Your task to perform on an android device: open app "Google Pay: Save, Pay, Manage" (install if not already installed) Image 0: 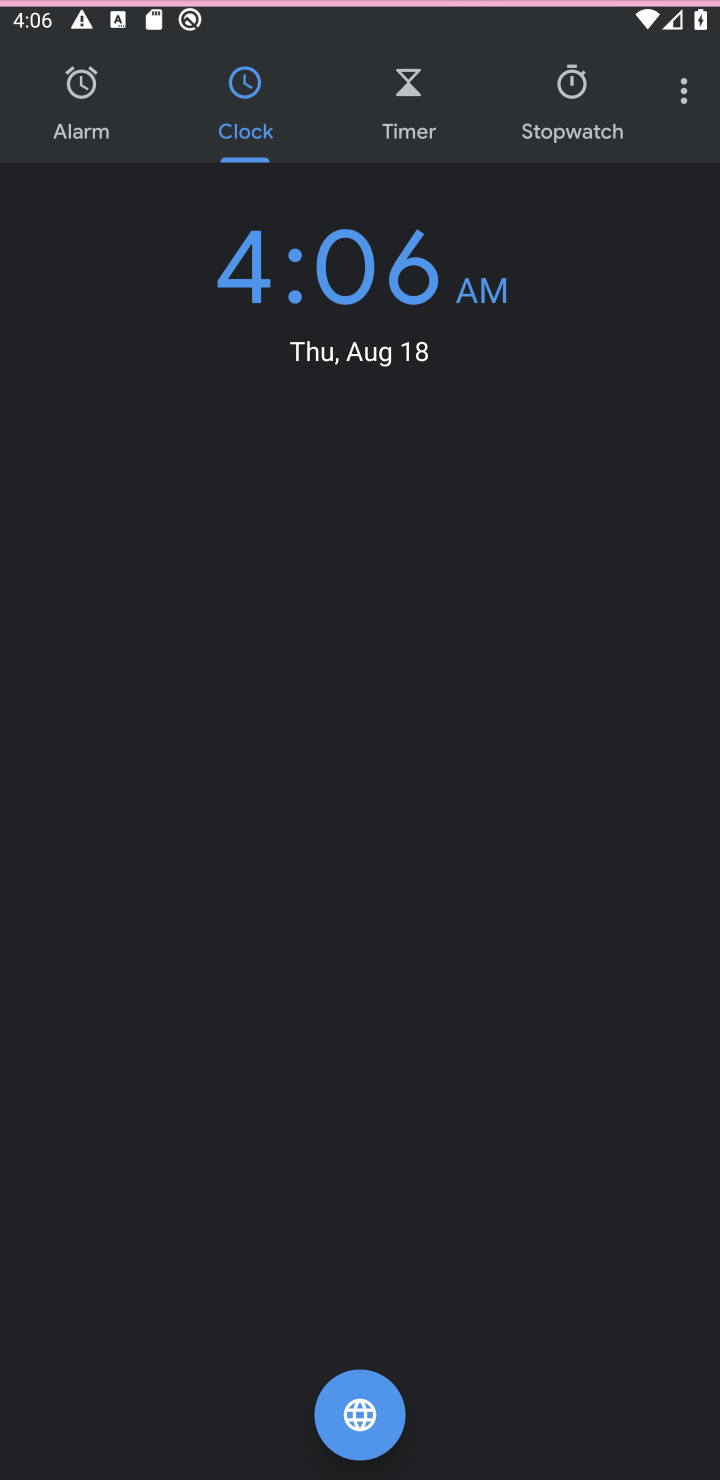
Step 0: press home button
Your task to perform on an android device: open app "Google Pay: Save, Pay, Manage" (install if not already installed) Image 1: 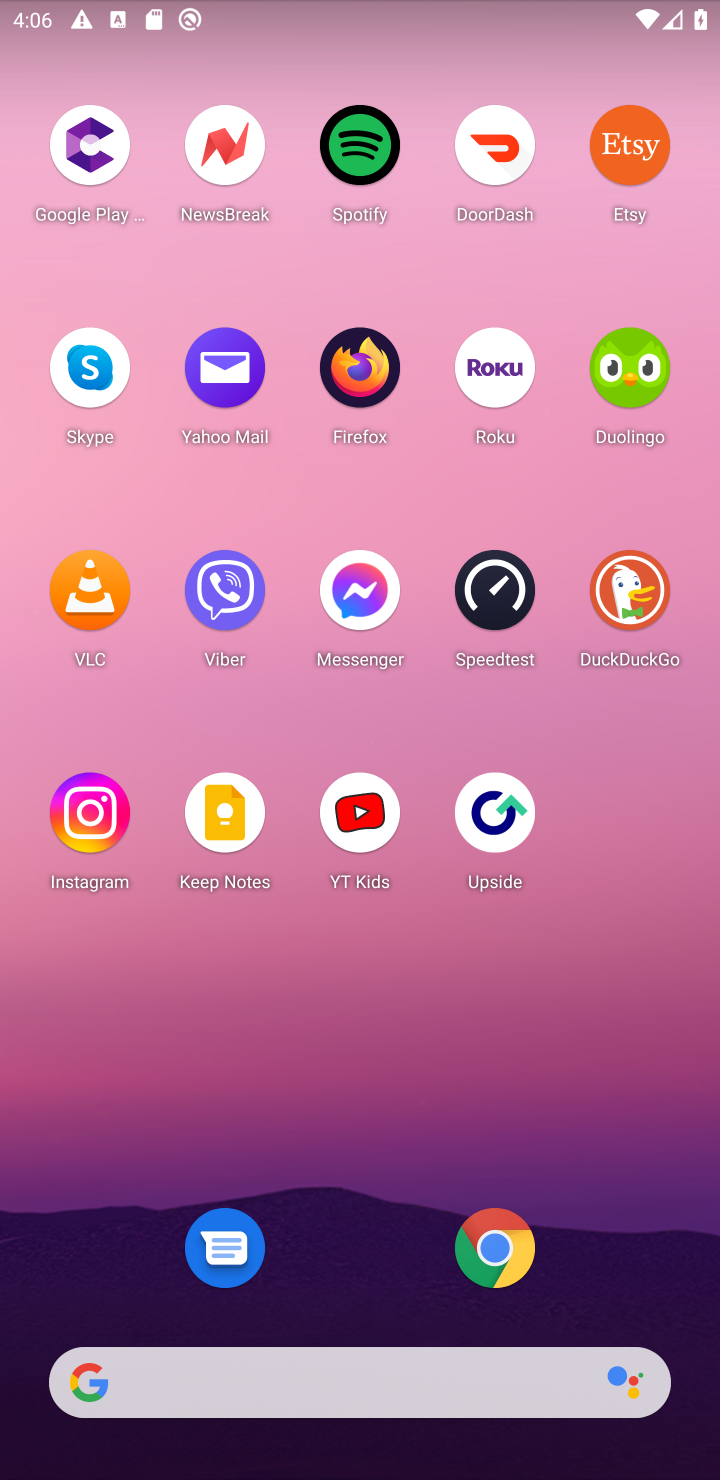
Step 1: drag from (374, 1315) to (368, 86)
Your task to perform on an android device: open app "Google Pay: Save, Pay, Manage" (install if not already installed) Image 2: 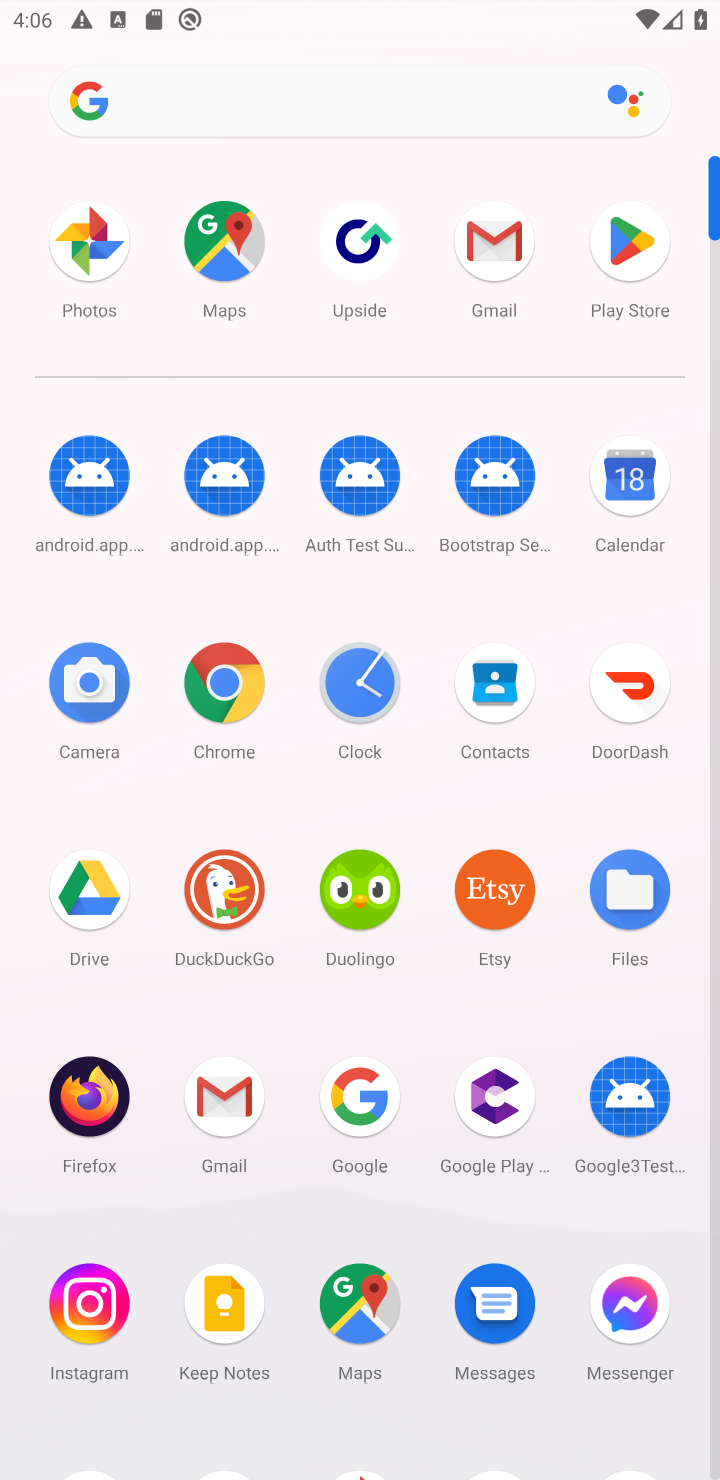
Step 2: click (626, 240)
Your task to perform on an android device: open app "Google Pay: Save, Pay, Manage" (install if not already installed) Image 3: 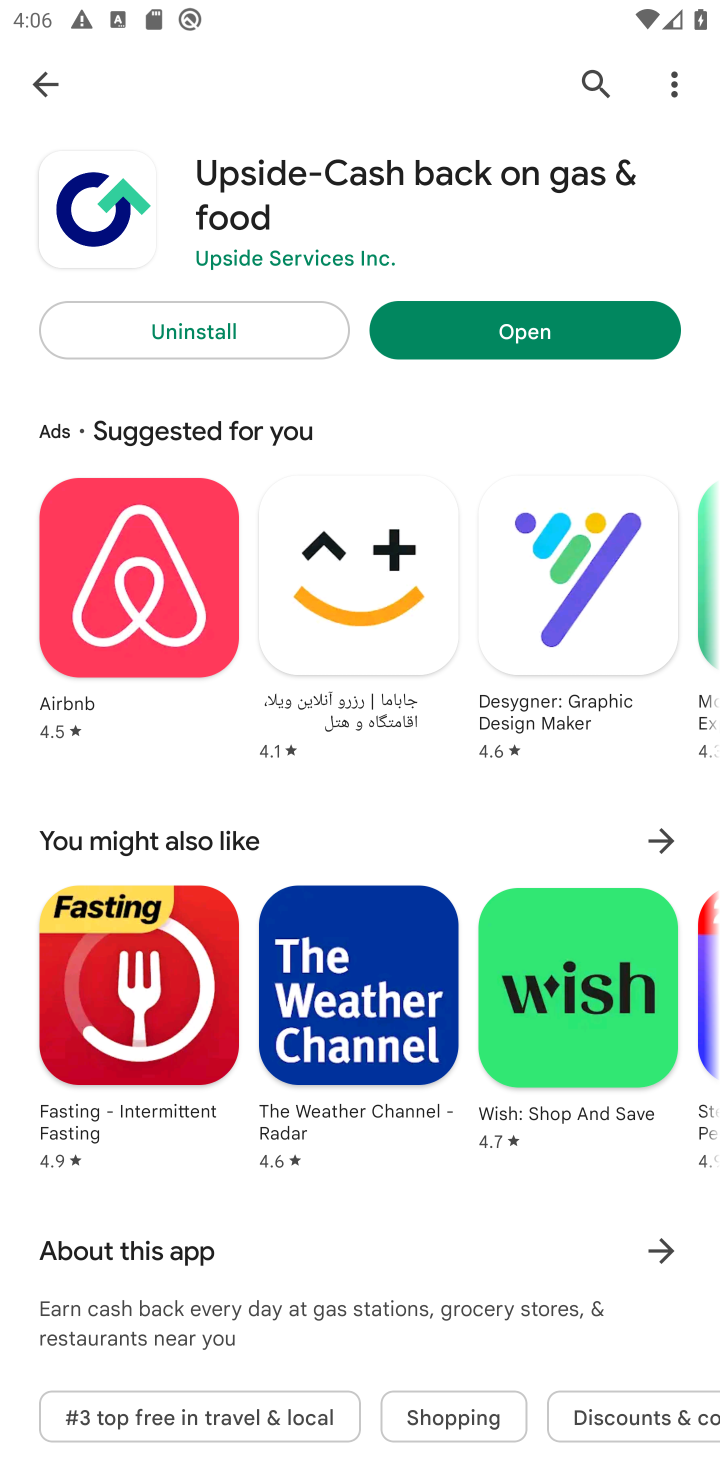
Step 3: click (582, 66)
Your task to perform on an android device: open app "Google Pay: Save, Pay, Manage" (install if not already installed) Image 4: 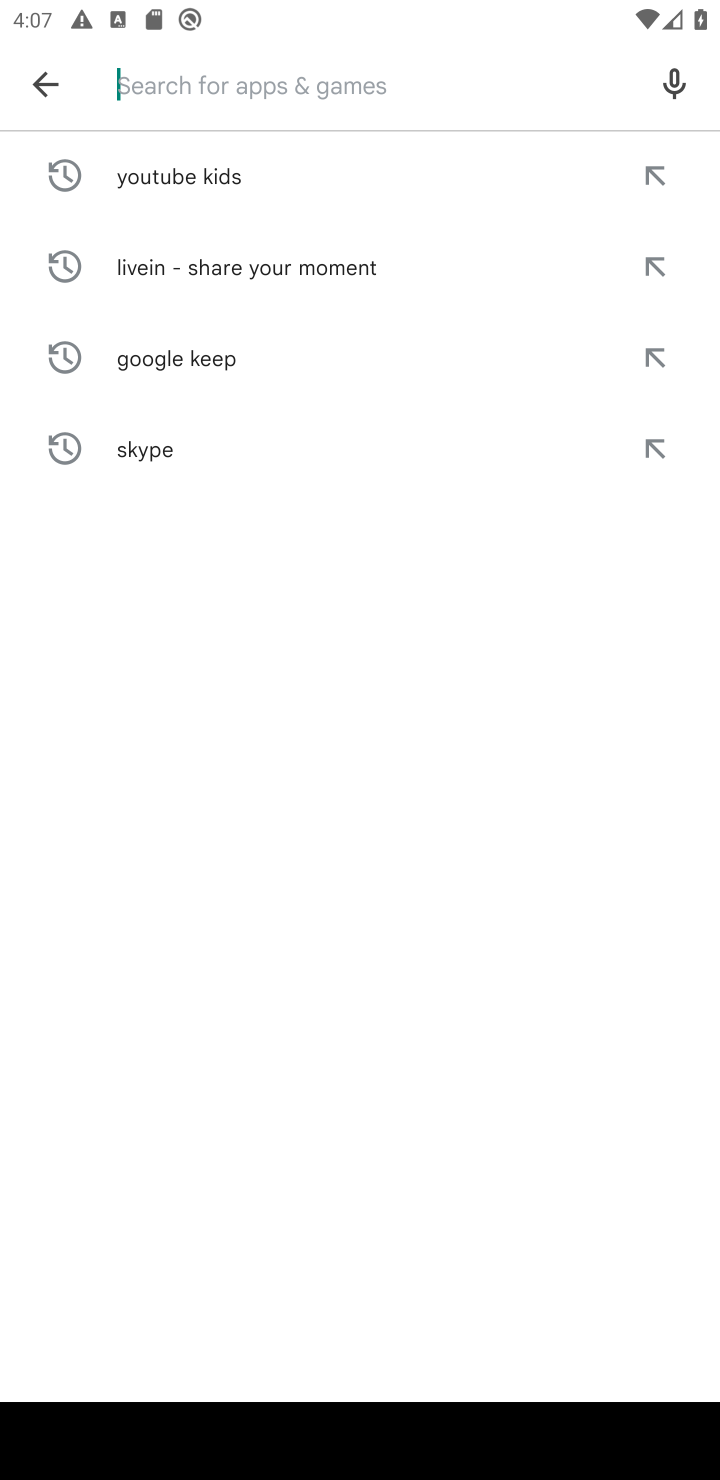
Step 4: type "Google Pay: Save, Pay, Manage"
Your task to perform on an android device: open app "Google Pay: Save, Pay, Manage" (install if not already installed) Image 5: 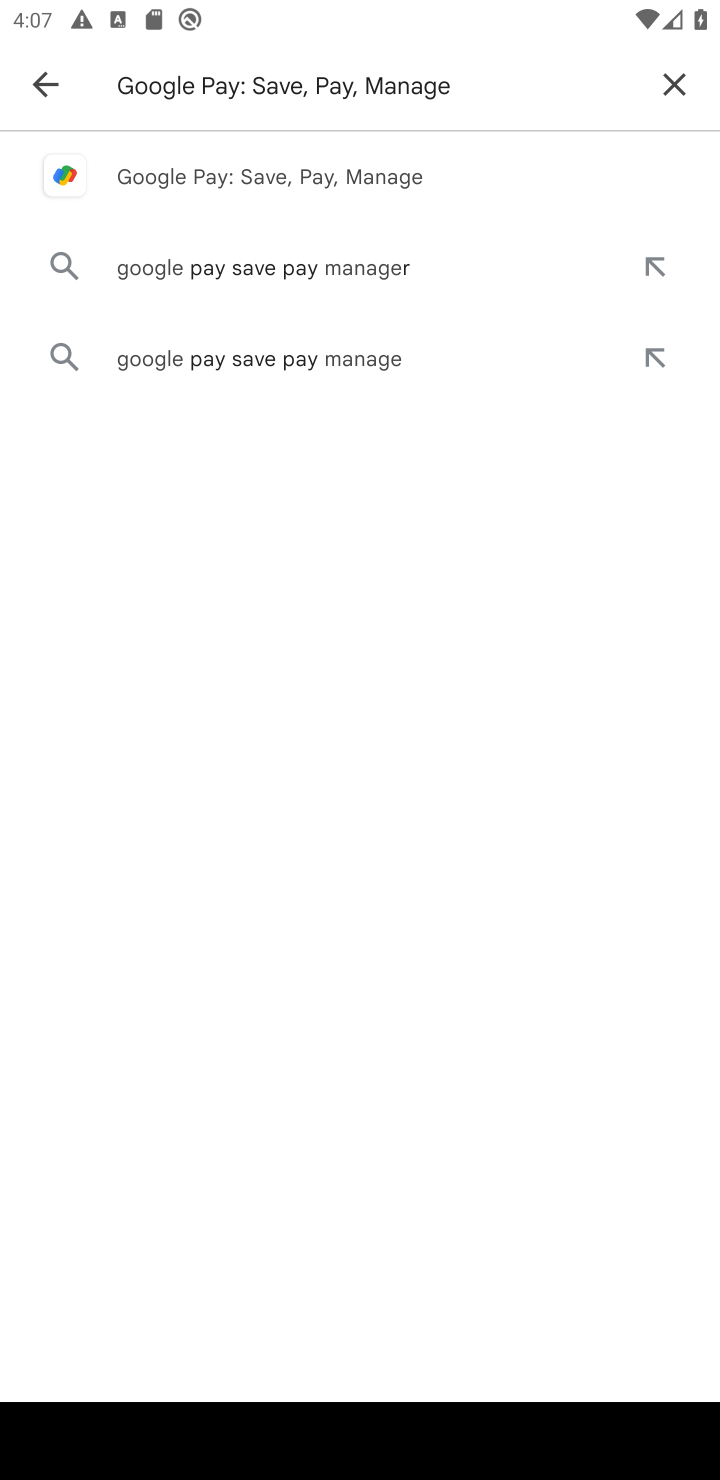
Step 5: click (199, 163)
Your task to perform on an android device: open app "Google Pay: Save, Pay, Manage" (install if not already installed) Image 6: 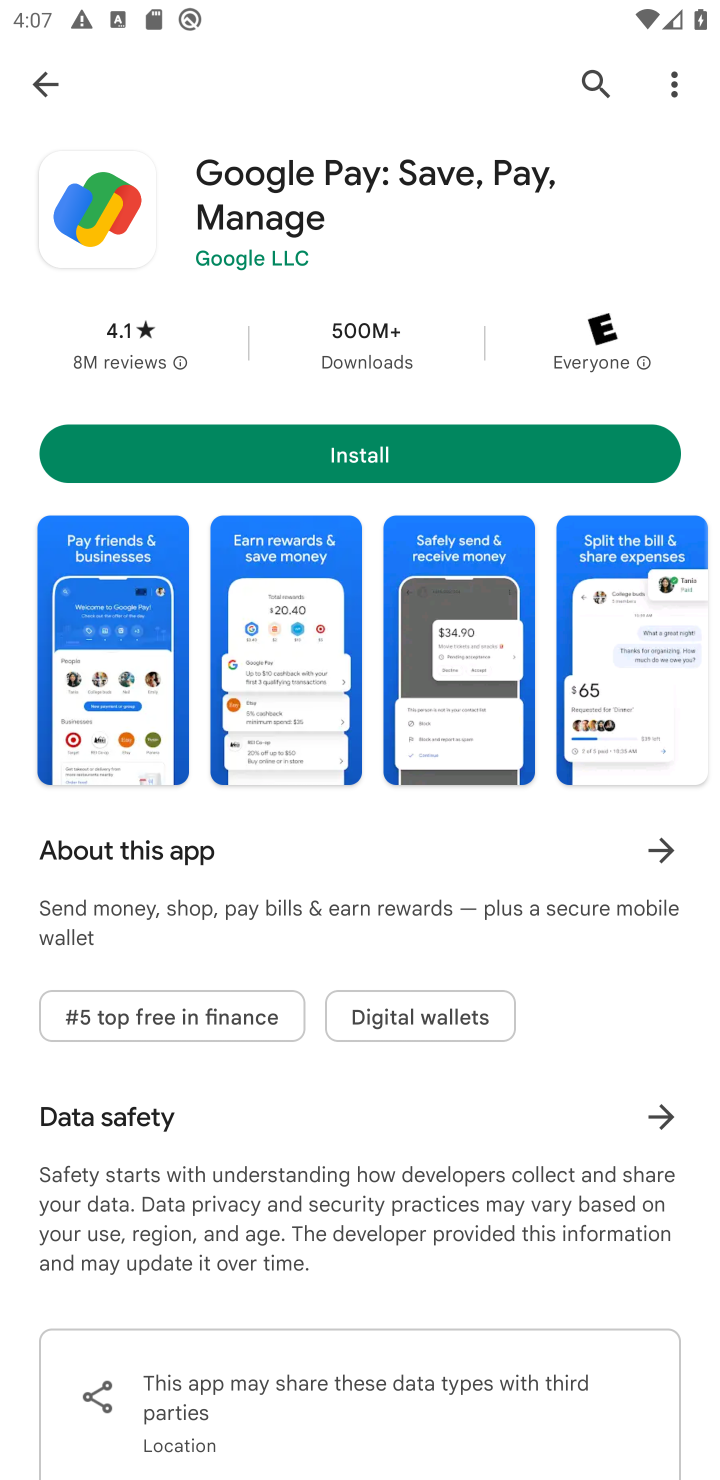
Step 6: click (308, 445)
Your task to perform on an android device: open app "Google Pay: Save, Pay, Manage" (install if not already installed) Image 7: 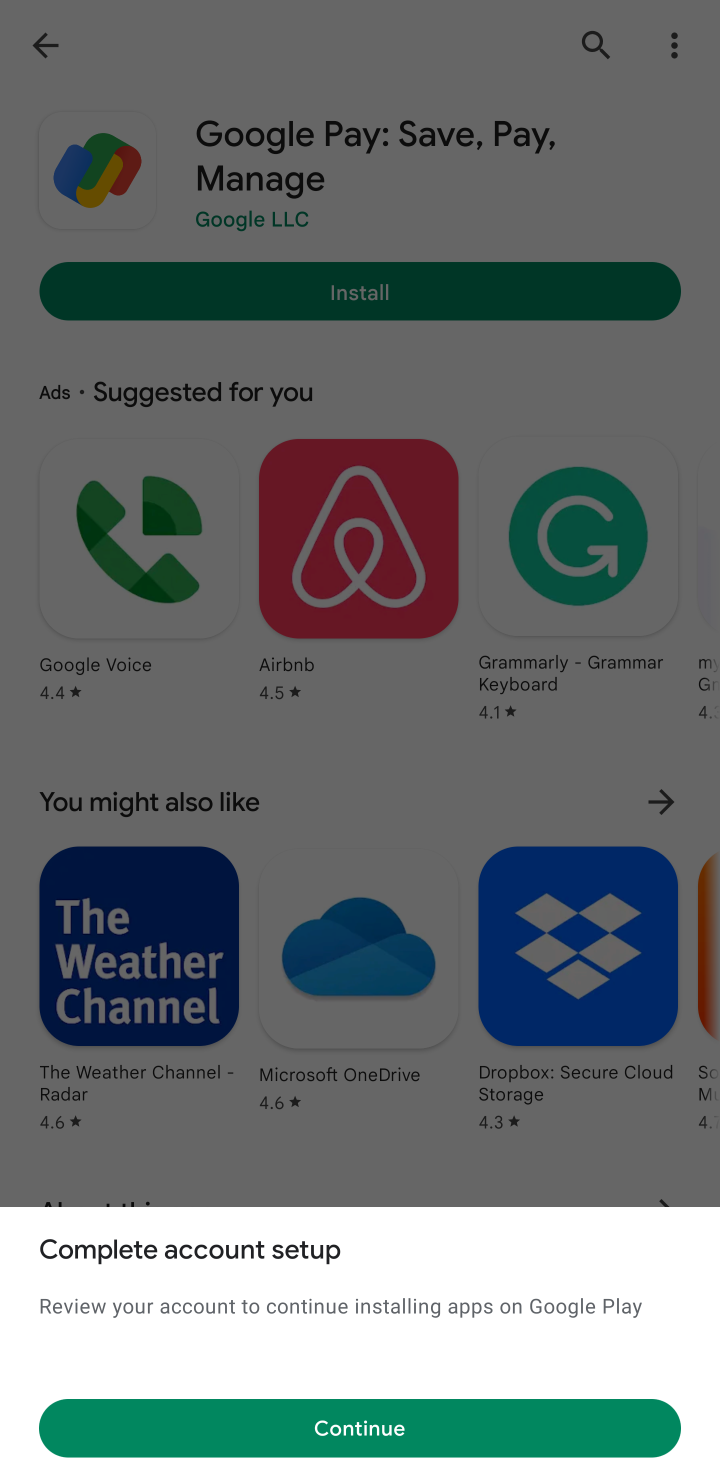
Step 7: click (377, 1415)
Your task to perform on an android device: open app "Google Pay: Save, Pay, Manage" (install if not already installed) Image 8: 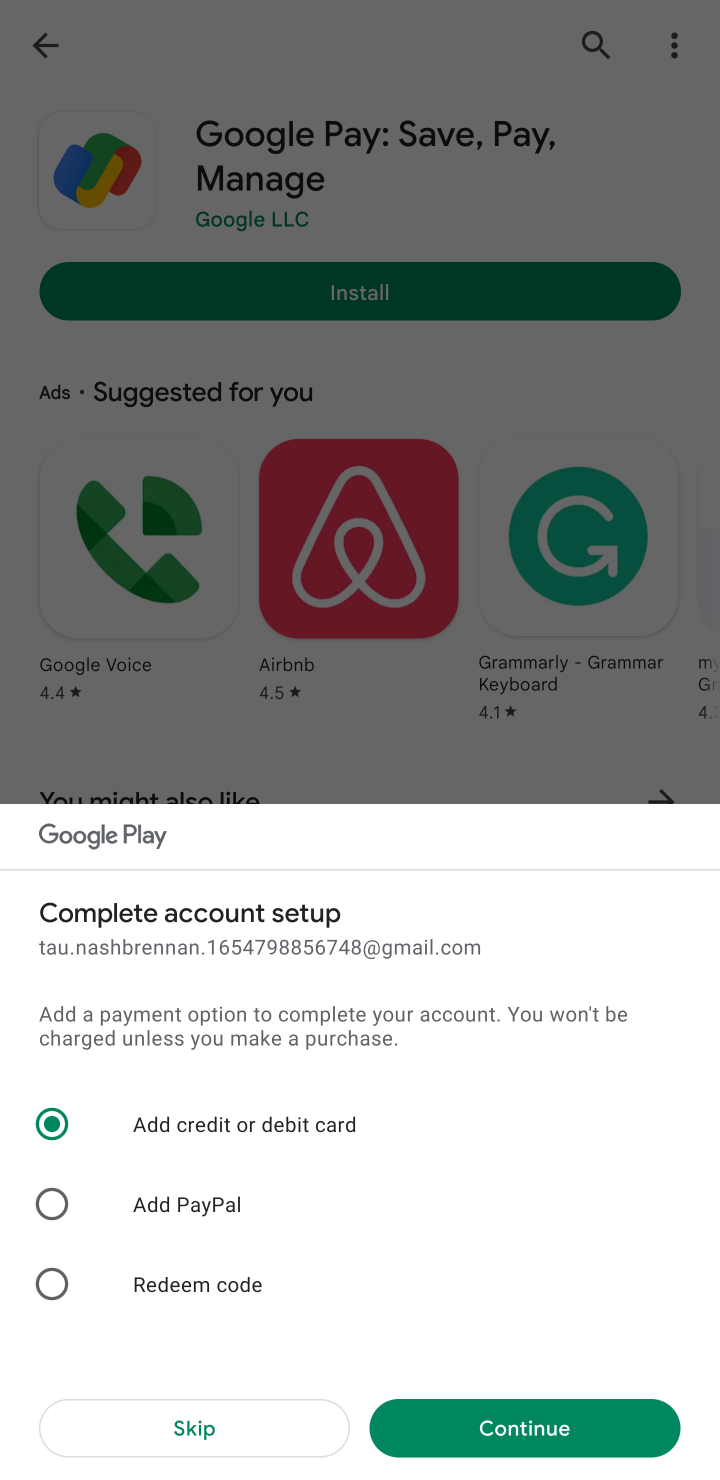
Step 8: click (263, 1415)
Your task to perform on an android device: open app "Google Pay: Save, Pay, Manage" (install if not already installed) Image 9: 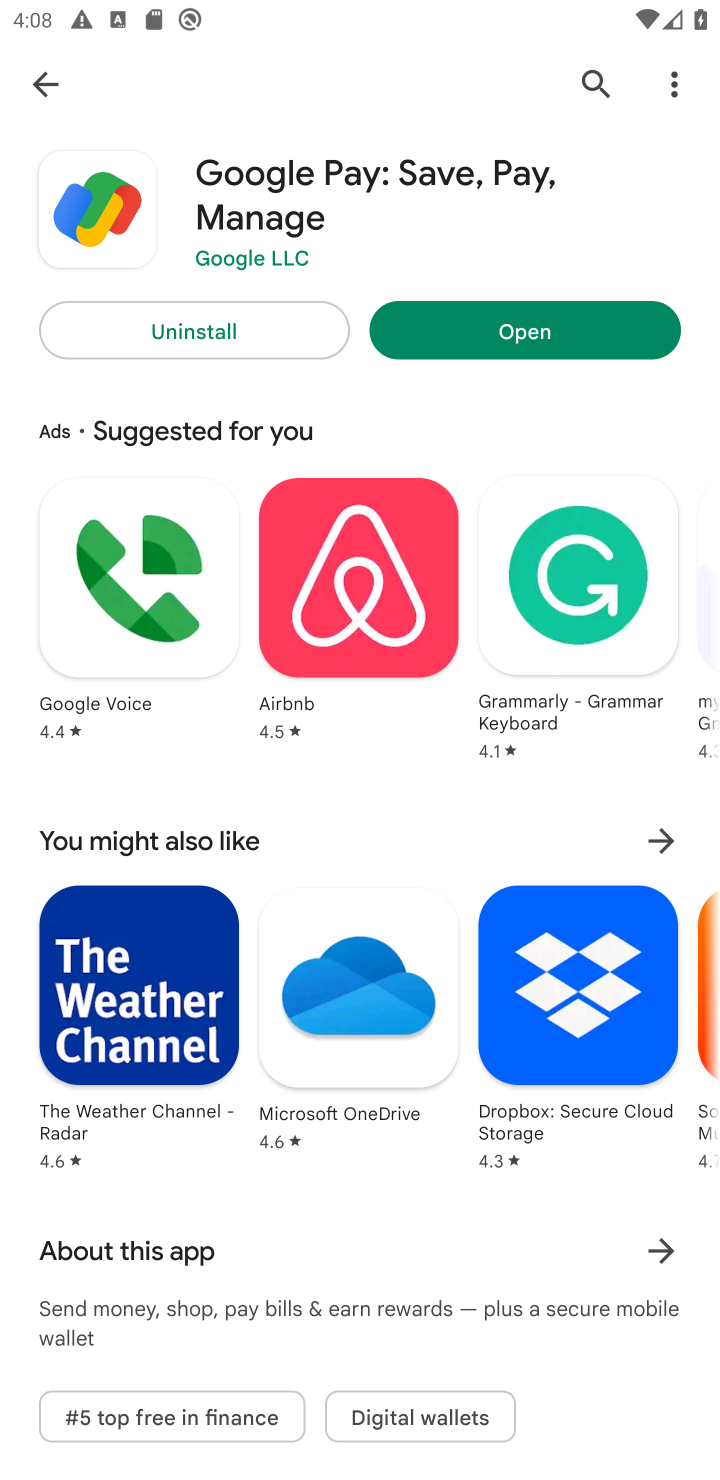
Step 9: click (567, 340)
Your task to perform on an android device: open app "Google Pay: Save, Pay, Manage" (install if not already installed) Image 10: 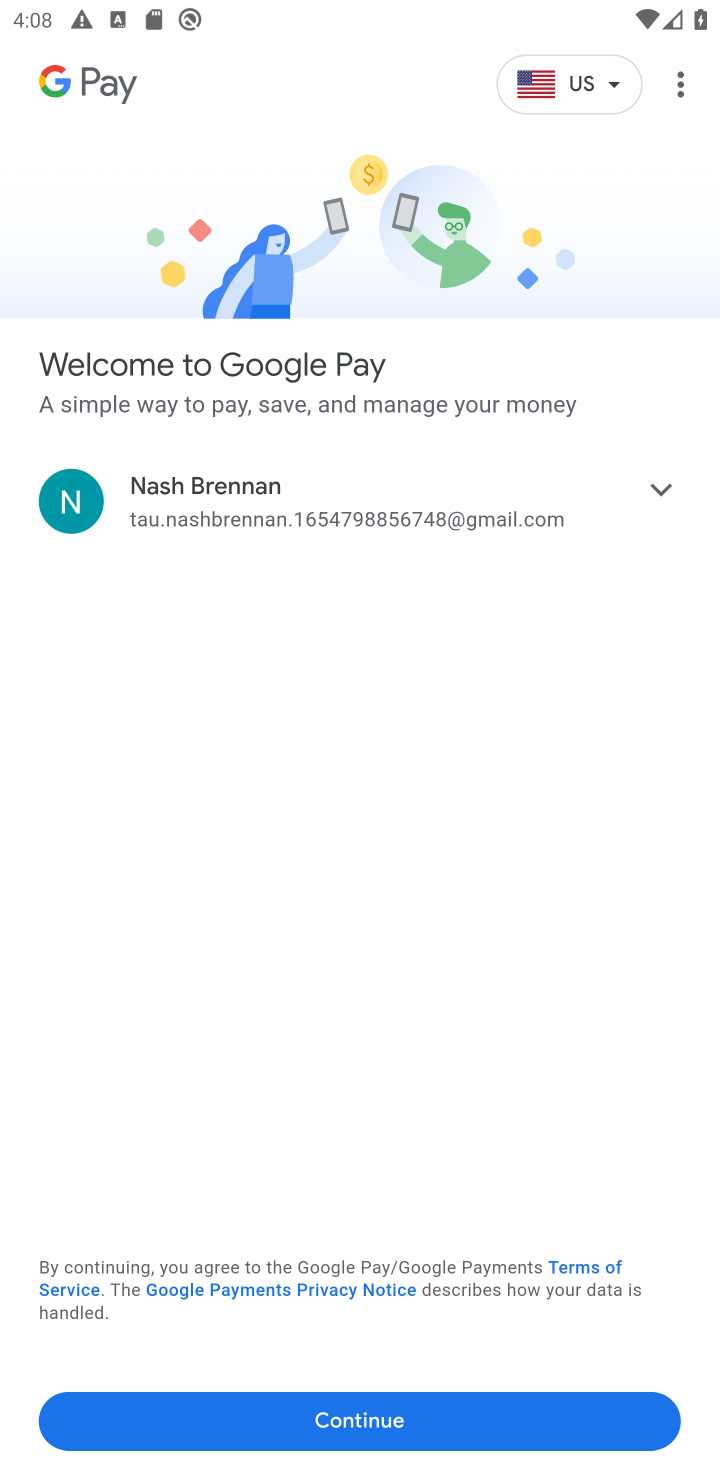
Step 10: task complete